Your task to perform on an android device: turn on priority inbox in the gmail app Image 0: 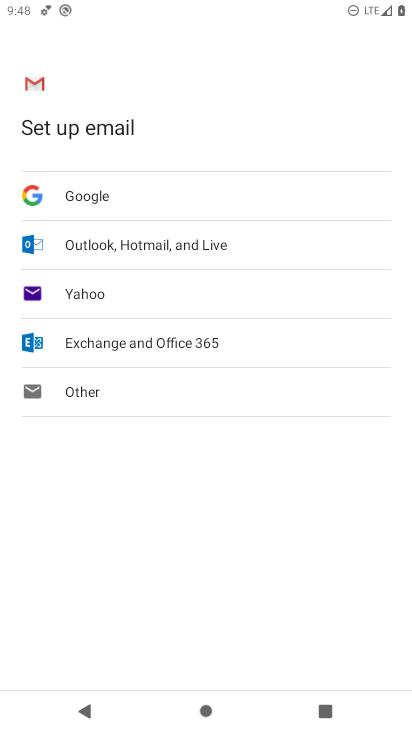
Step 0: press home button
Your task to perform on an android device: turn on priority inbox in the gmail app Image 1: 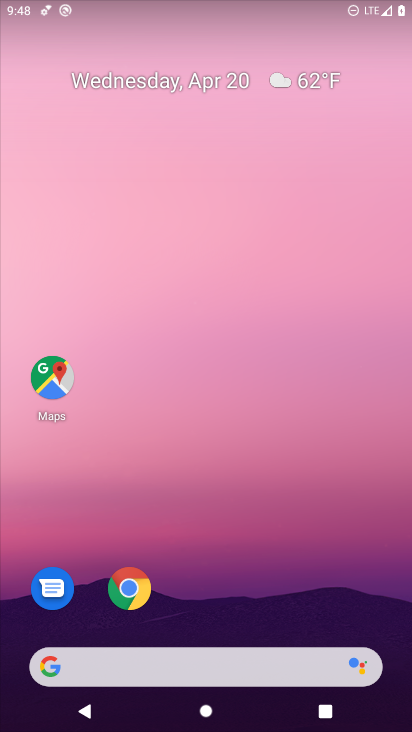
Step 1: drag from (212, 485) to (231, 149)
Your task to perform on an android device: turn on priority inbox in the gmail app Image 2: 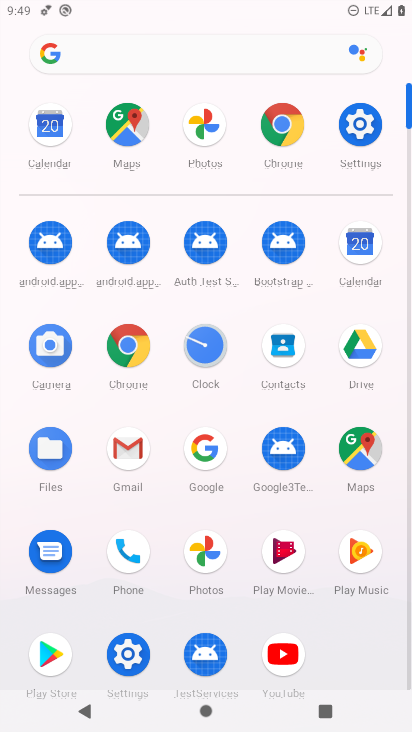
Step 2: click (129, 446)
Your task to perform on an android device: turn on priority inbox in the gmail app Image 3: 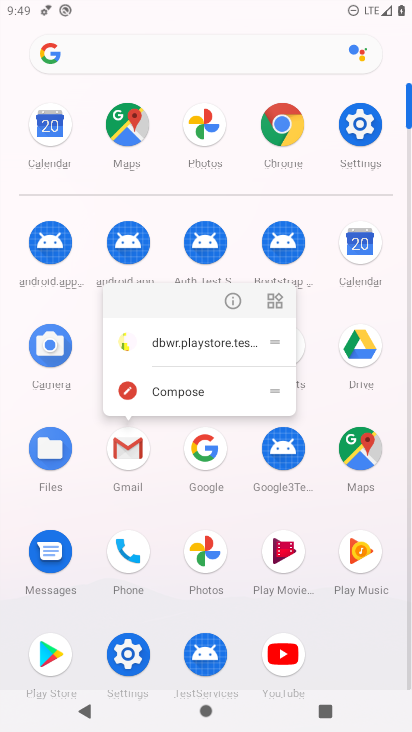
Step 3: click (127, 446)
Your task to perform on an android device: turn on priority inbox in the gmail app Image 4: 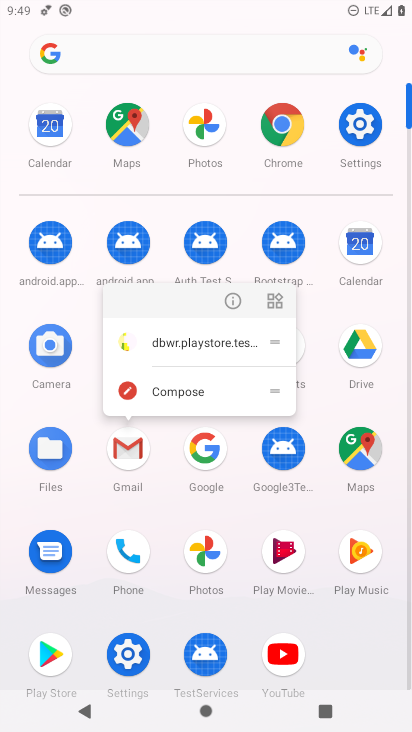
Step 4: click (127, 446)
Your task to perform on an android device: turn on priority inbox in the gmail app Image 5: 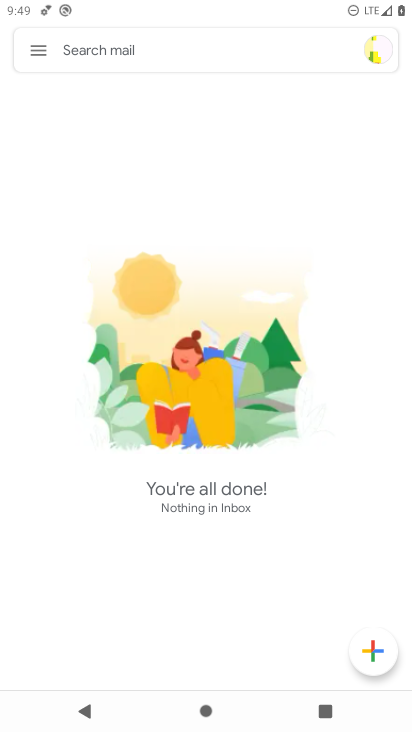
Step 5: click (39, 44)
Your task to perform on an android device: turn on priority inbox in the gmail app Image 6: 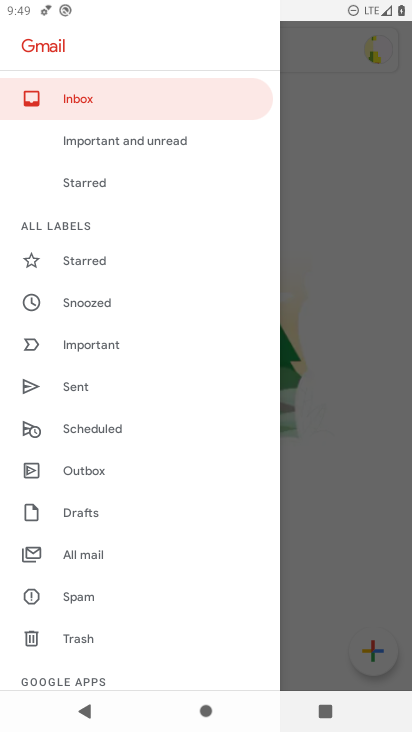
Step 6: drag from (129, 623) to (142, 84)
Your task to perform on an android device: turn on priority inbox in the gmail app Image 7: 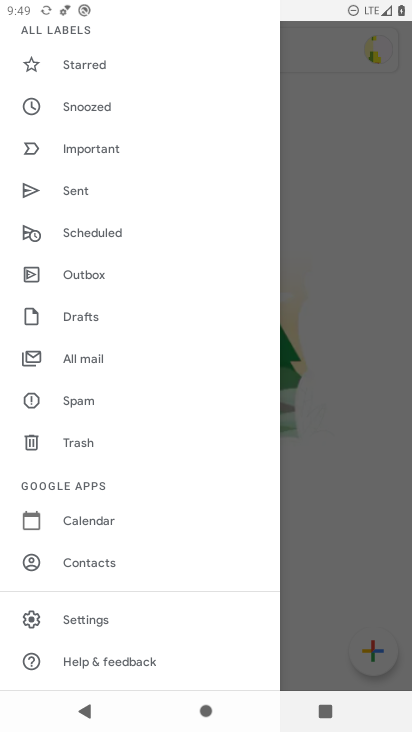
Step 7: click (118, 617)
Your task to perform on an android device: turn on priority inbox in the gmail app Image 8: 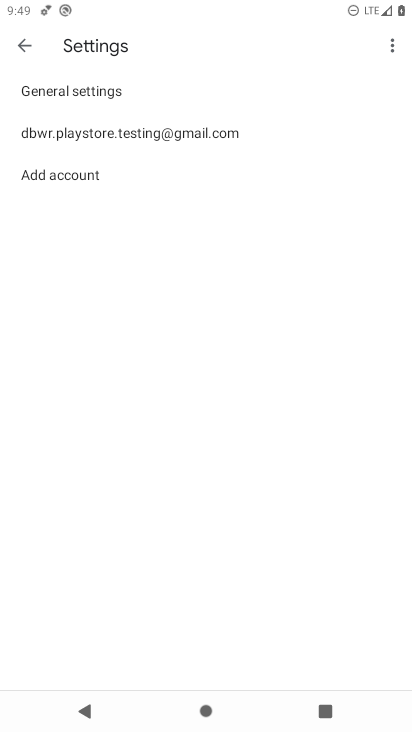
Step 8: click (177, 125)
Your task to perform on an android device: turn on priority inbox in the gmail app Image 9: 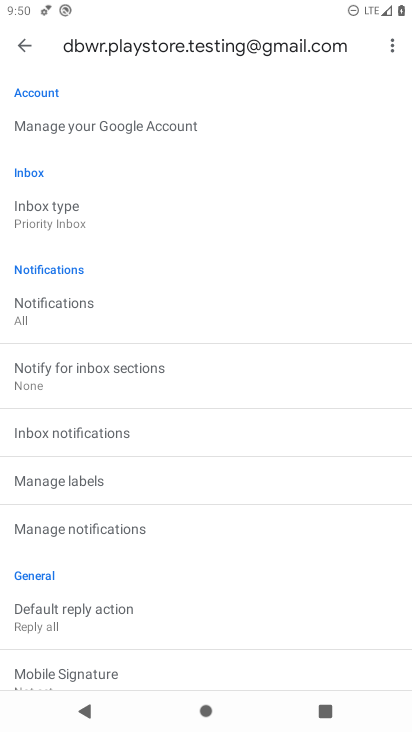
Step 9: click (89, 215)
Your task to perform on an android device: turn on priority inbox in the gmail app Image 10: 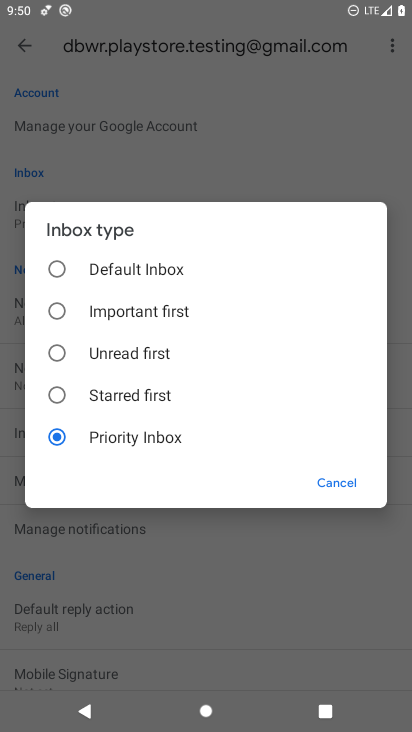
Step 10: click (95, 436)
Your task to perform on an android device: turn on priority inbox in the gmail app Image 11: 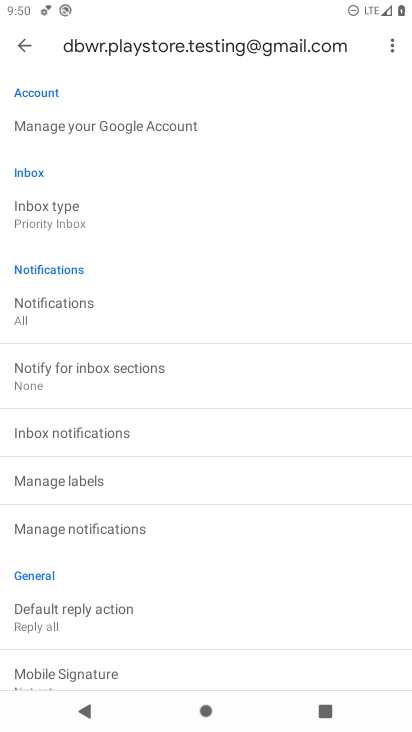
Step 11: task complete